Your task to perform on an android device: Go to wifi settings Image 0: 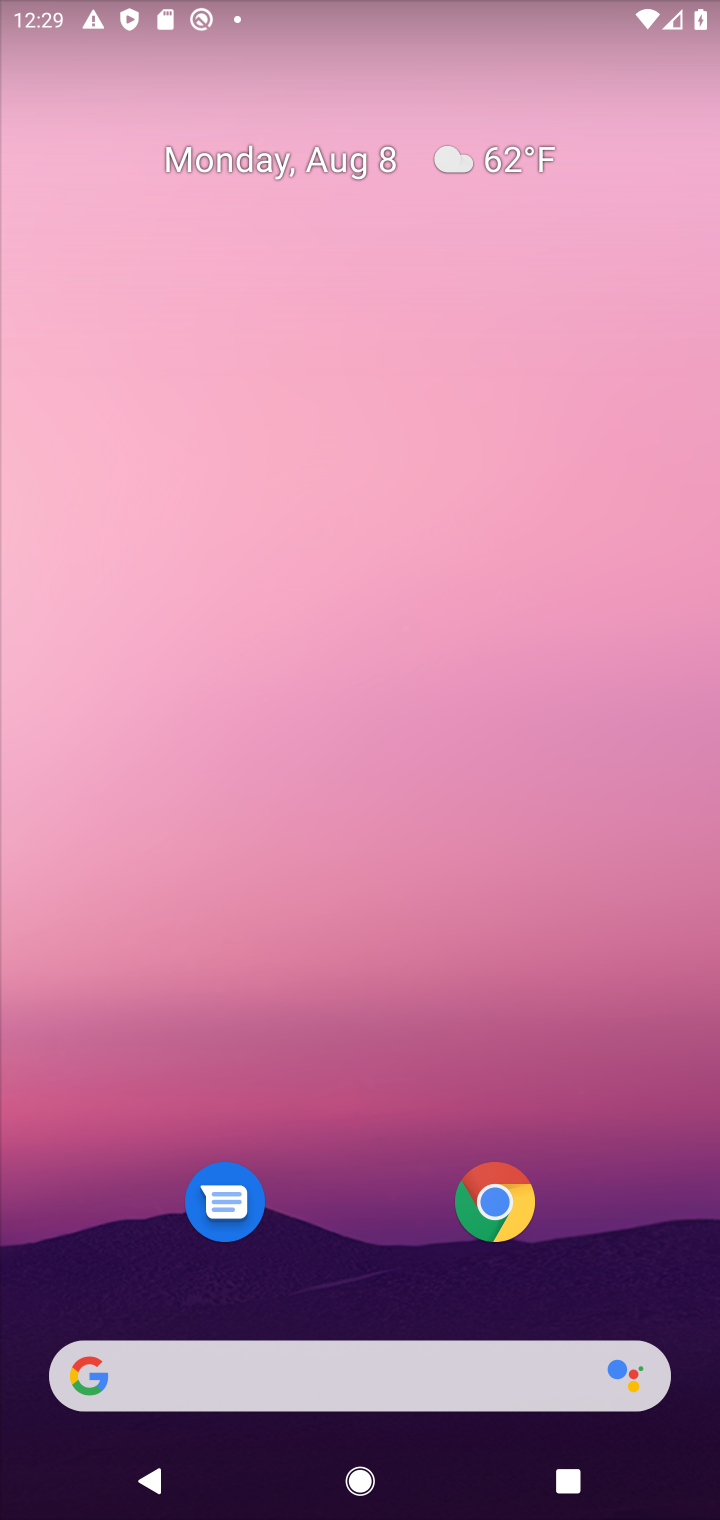
Step 0: drag from (343, 899) to (410, 196)
Your task to perform on an android device: Go to wifi settings Image 1: 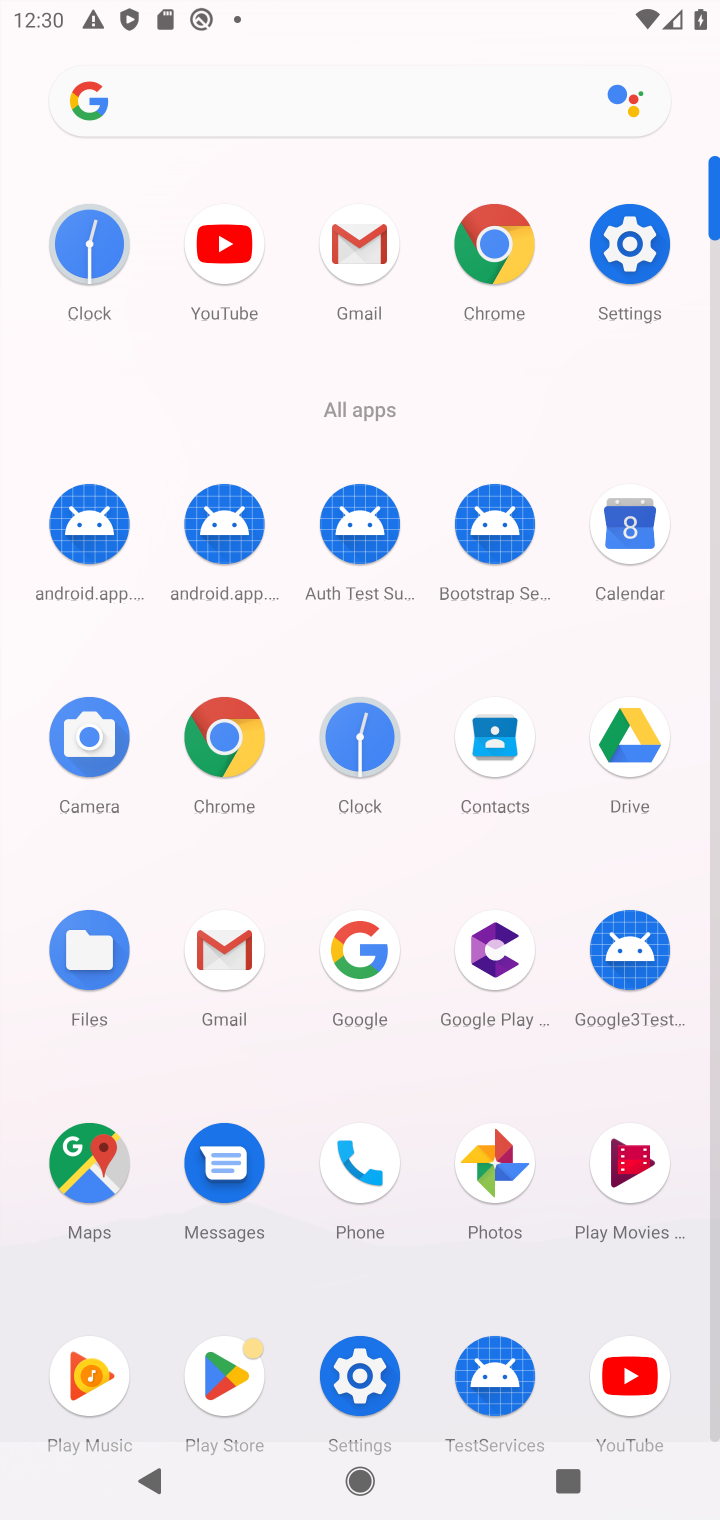
Step 1: click (625, 243)
Your task to perform on an android device: Go to wifi settings Image 2: 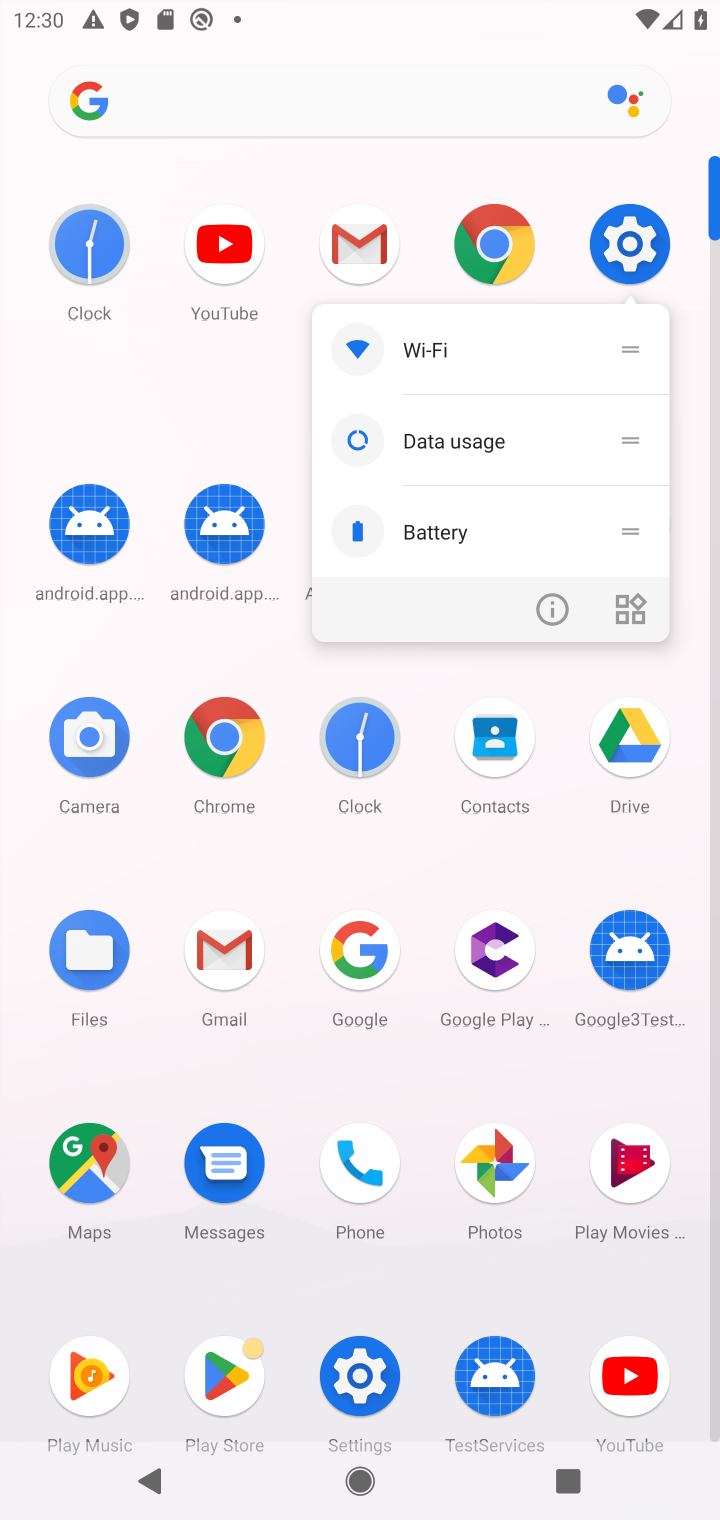
Step 2: click (438, 344)
Your task to perform on an android device: Go to wifi settings Image 3: 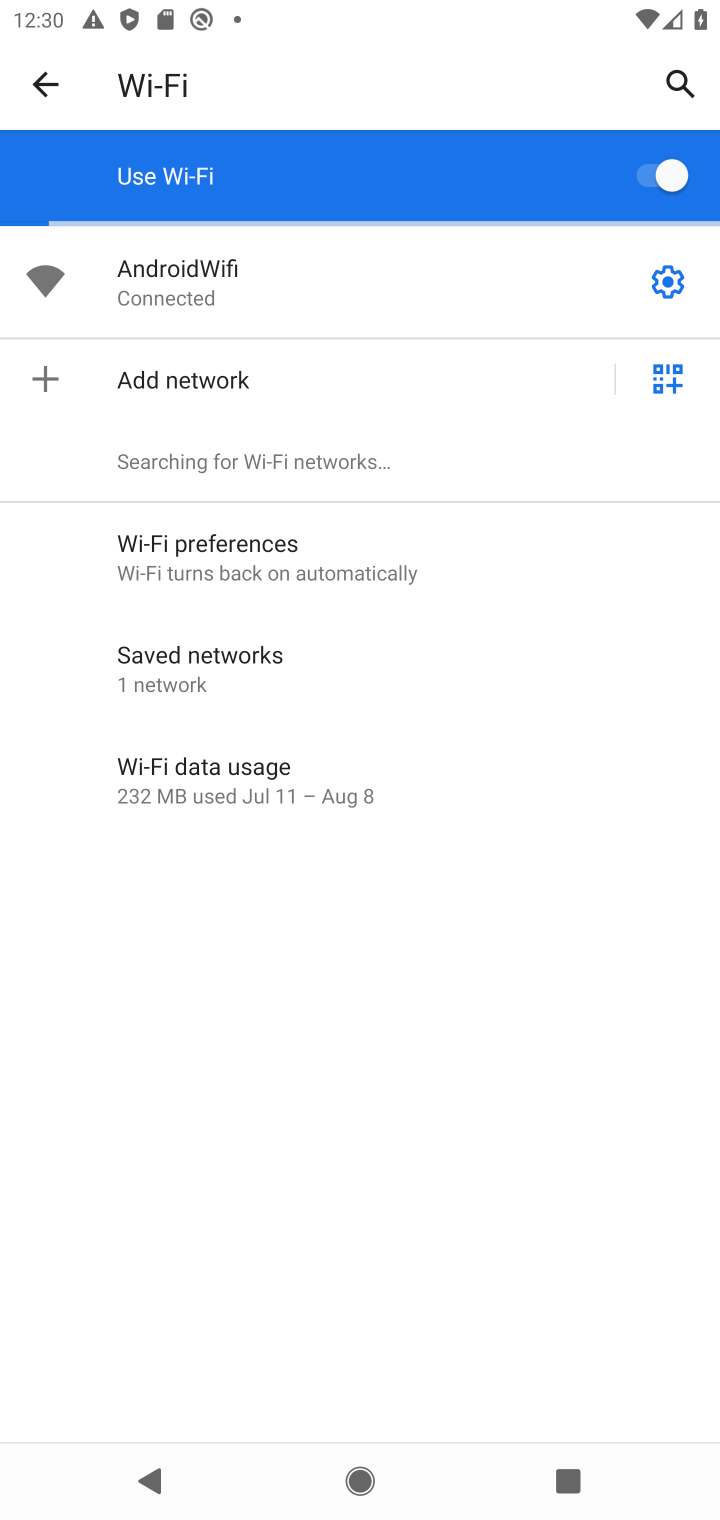
Step 3: click (212, 290)
Your task to perform on an android device: Go to wifi settings Image 4: 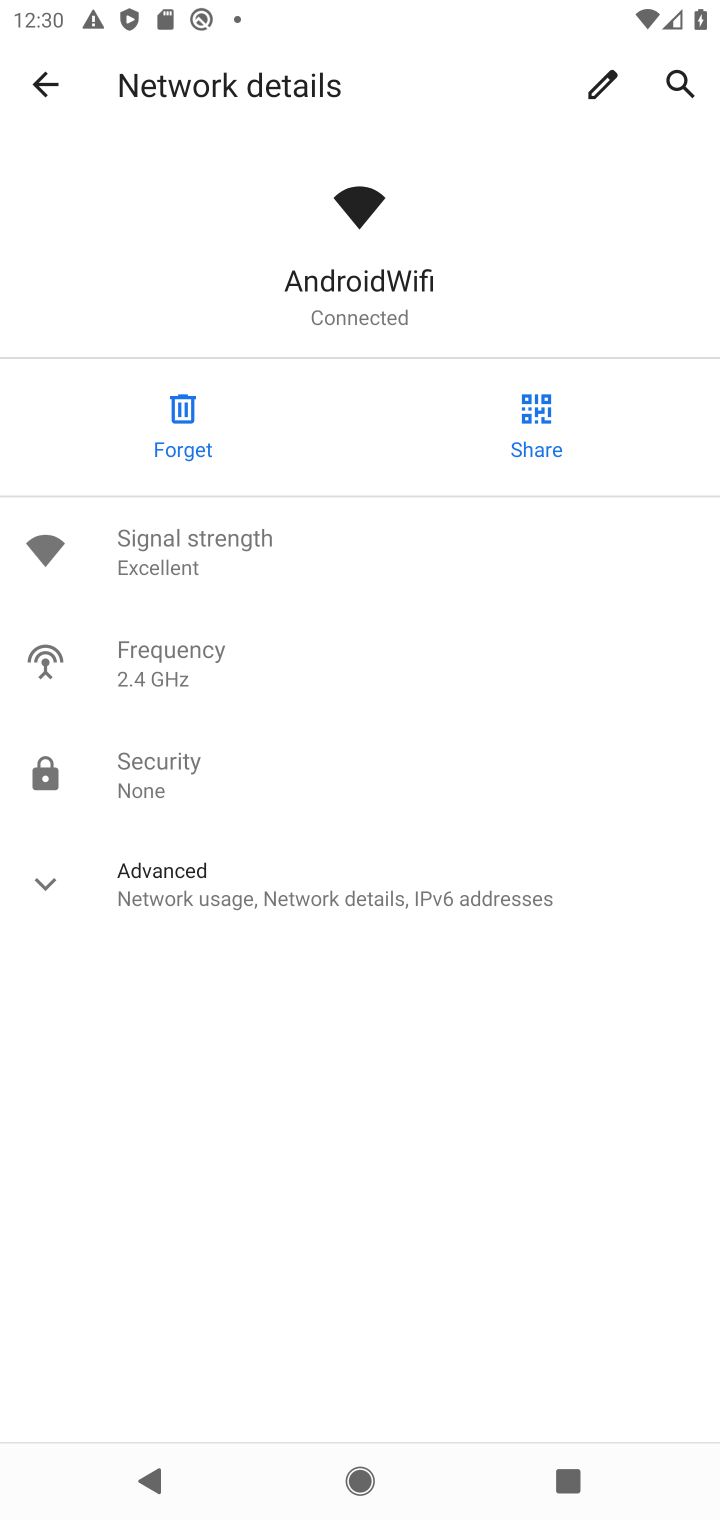
Step 4: task complete